Your task to perform on an android device: change the clock display to analog Image 0: 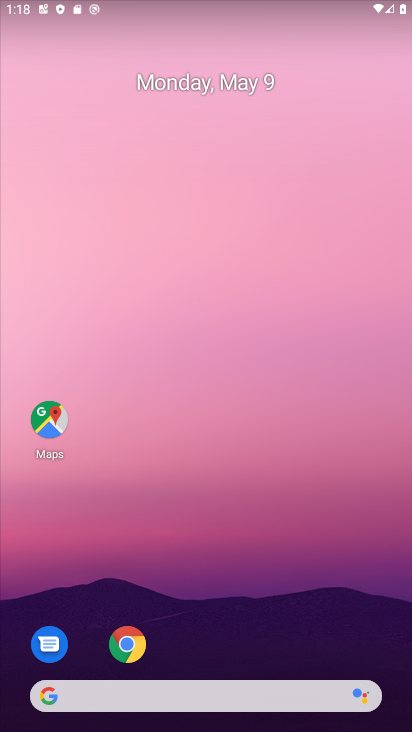
Step 0: drag from (295, 551) to (157, 9)
Your task to perform on an android device: change the clock display to analog Image 1: 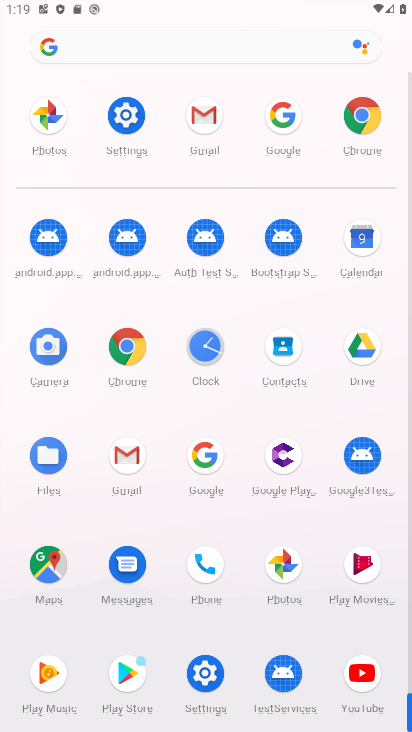
Step 1: click (204, 381)
Your task to perform on an android device: change the clock display to analog Image 2: 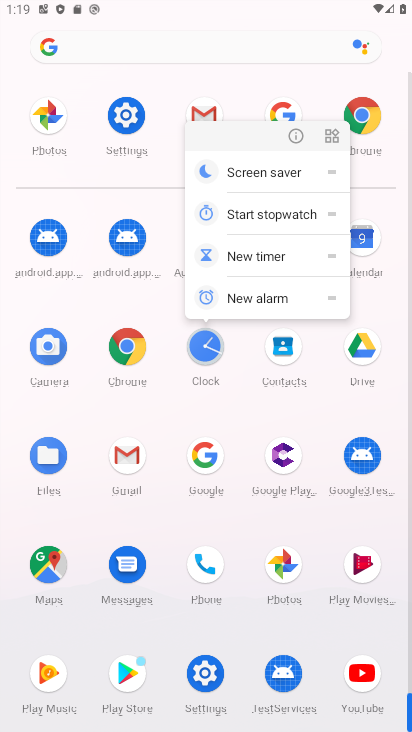
Step 2: click (211, 370)
Your task to perform on an android device: change the clock display to analog Image 3: 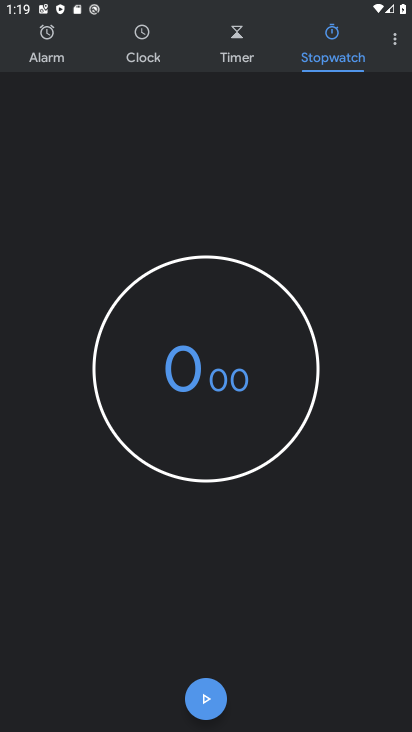
Step 3: click (391, 39)
Your task to perform on an android device: change the clock display to analog Image 4: 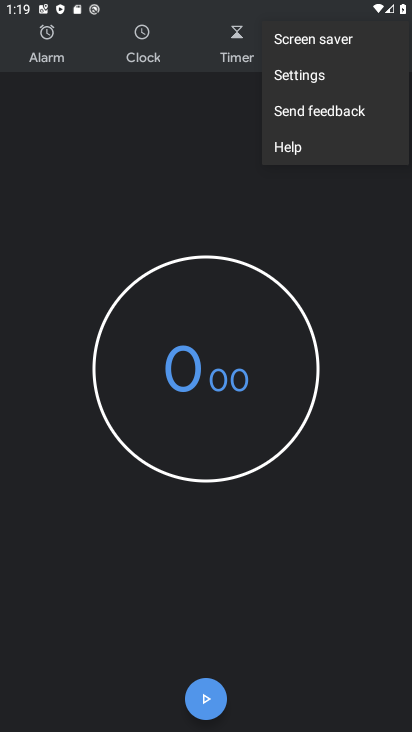
Step 4: click (326, 69)
Your task to perform on an android device: change the clock display to analog Image 5: 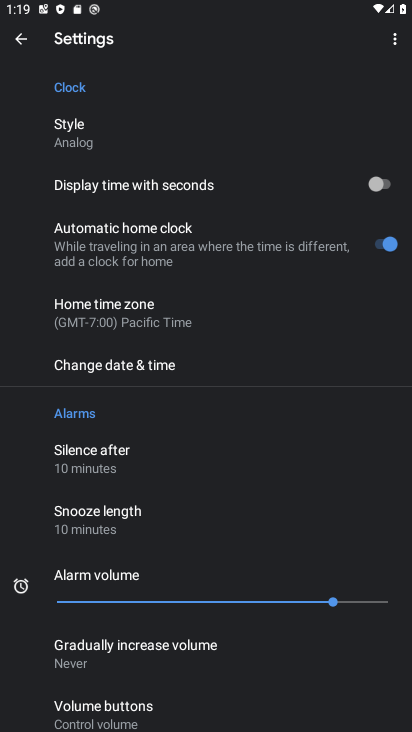
Step 5: task complete